Your task to perform on an android device: turn off improve location accuracy Image 0: 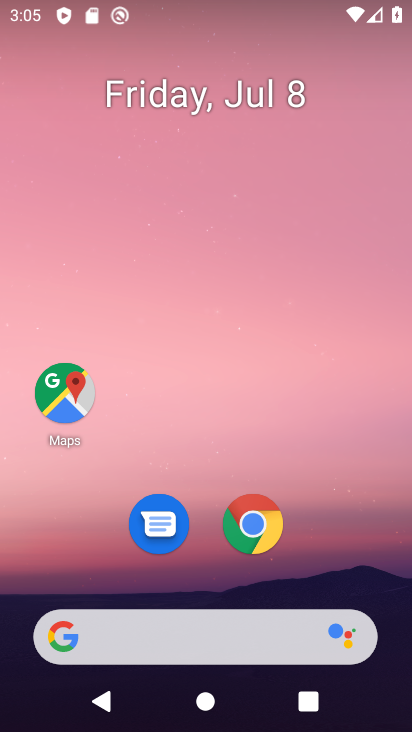
Step 0: drag from (320, 552) to (304, 38)
Your task to perform on an android device: turn off improve location accuracy Image 1: 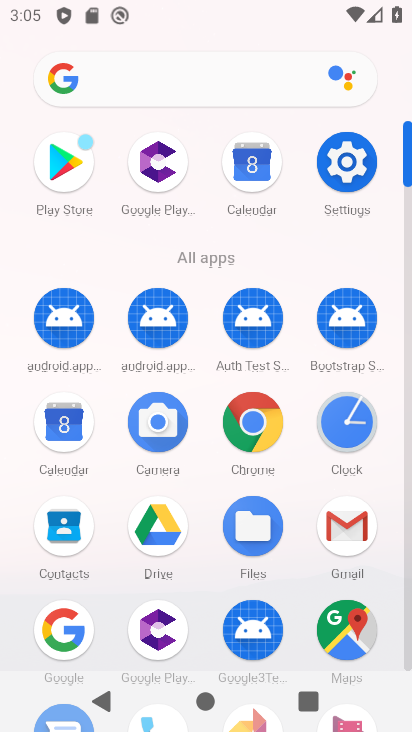
Step 1: click (340, 163)
Your task to perform on an android device: turn off improve location accuracy Image 2: 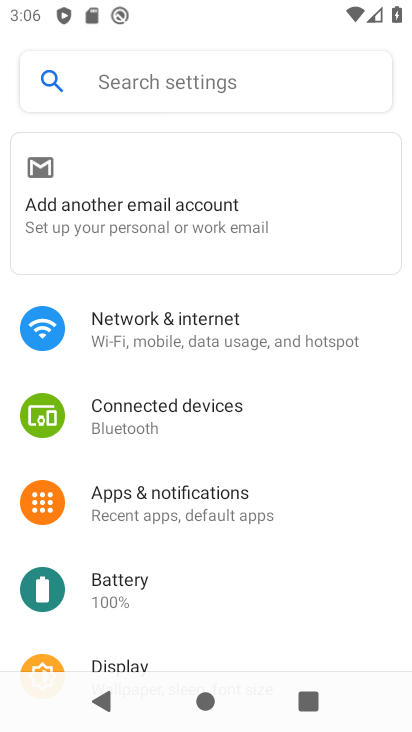
Step 2: drag from (229, 540) to (206, 198)
Your task to perform on an android device: turn off improve location accuracy Image 3: 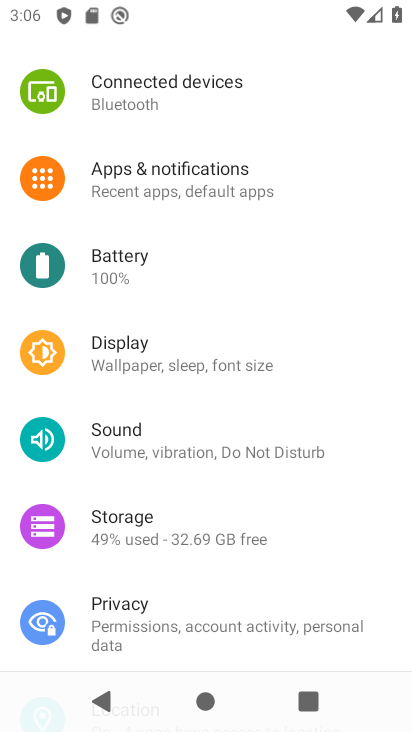
Step 3: drag from (208, 578) to (238, 251)
Your task to perform on an android device: turn off improve location accuracy Image 4: 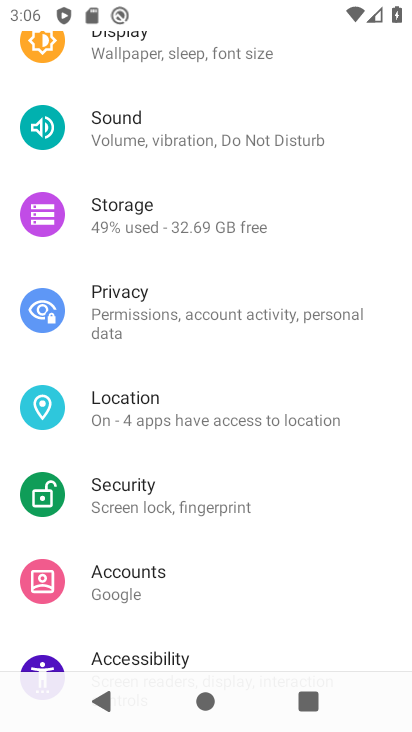
Step 4: click (192, 405)
Your task to perform on an android device: turn off improve location accuracy Image 5: 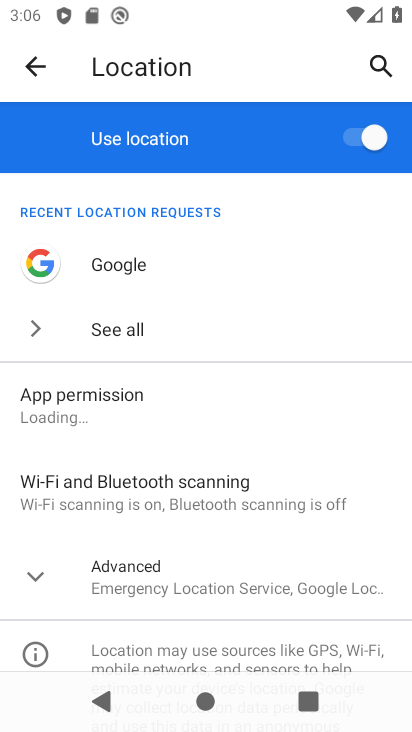
Step 5: click (36, 569)
Your task to perform on an android device: turn off improve location accuracy Image 6: 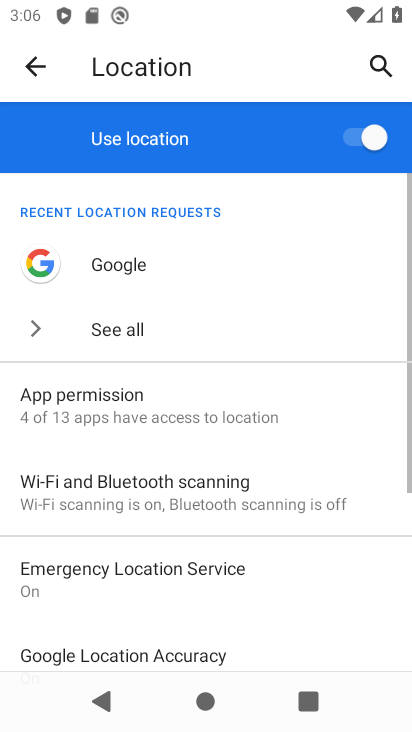
Step 6: drag from (310, 467) to (361, 130)
Your task to perform on an android device: turn off improve location accuracy Image 7: 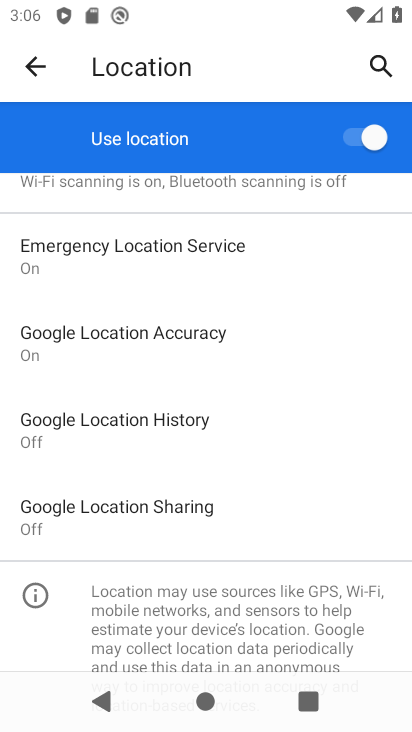
Step 7: click (215, 329)
Your task to perform on an android device: turn off improve location accuracy Image 8: 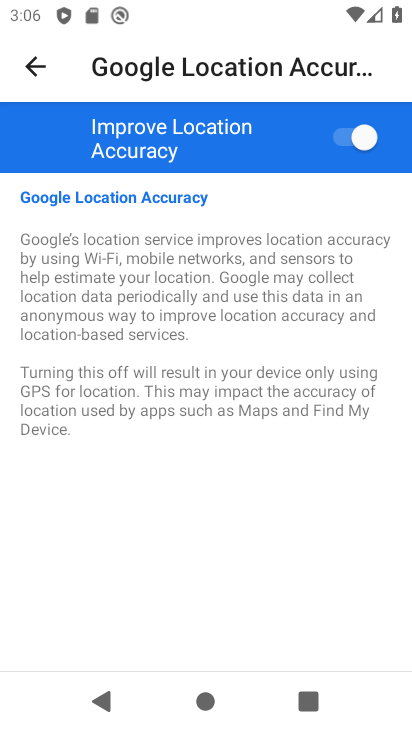
Step 8: click (342, 138)
Your task to perform on an android device: turn off improve location accuracy Image 9: 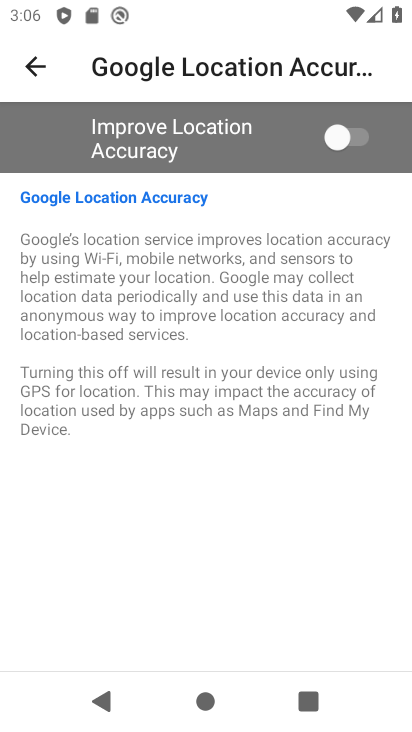
Step 9: task complete